Your task to perform on an android device: Is it going to rain today? Image 0: 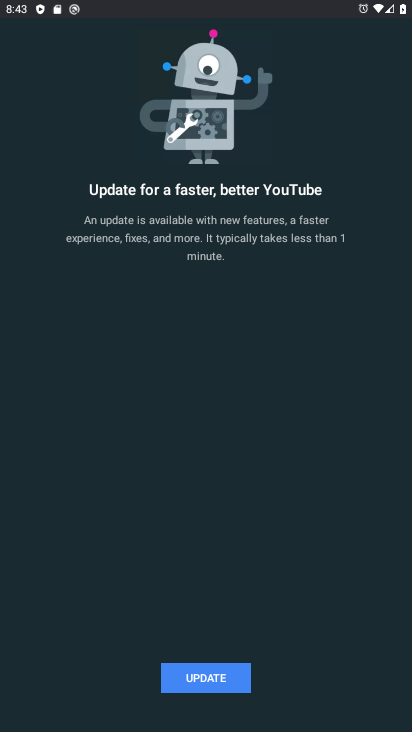
Step 0: task complete